Your task to perform on an android device: refresh tabs in the chrome app Image 0: 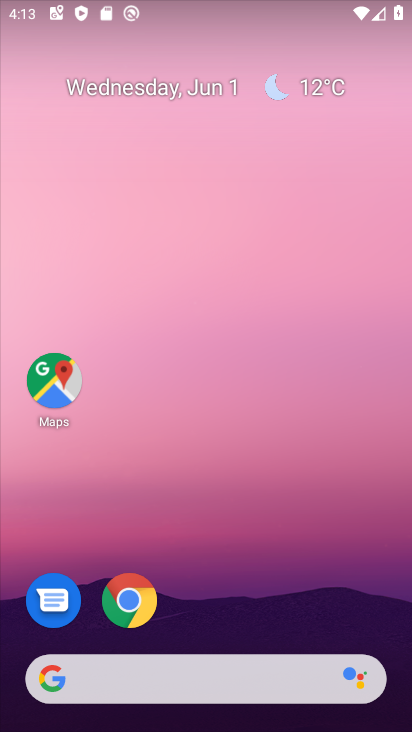
Step 0: click (131, 598)
Your task to perform on an android device: refresh tabs in the chrome app Image 1: 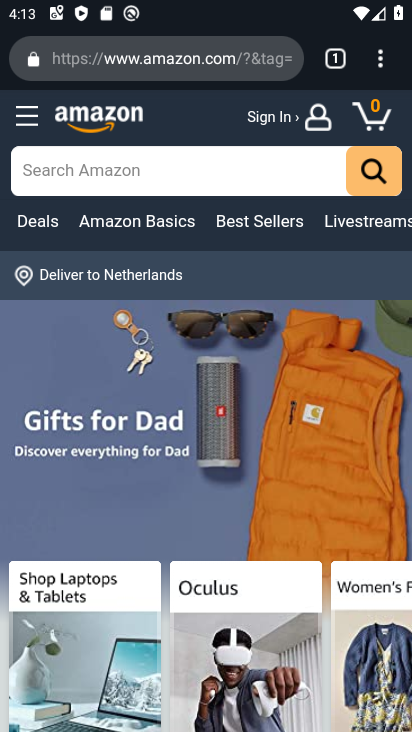
Step 1: click (382, 71)
Your task to perform on an android device: refresh tabs in the chrome app Image 2: 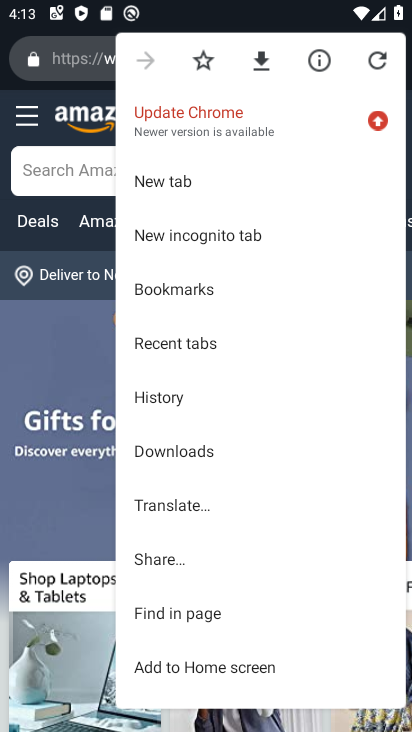
Step 2: click (378, 60)
Your task to perform on an android device: refresh tabs in the chrome app Image 3: 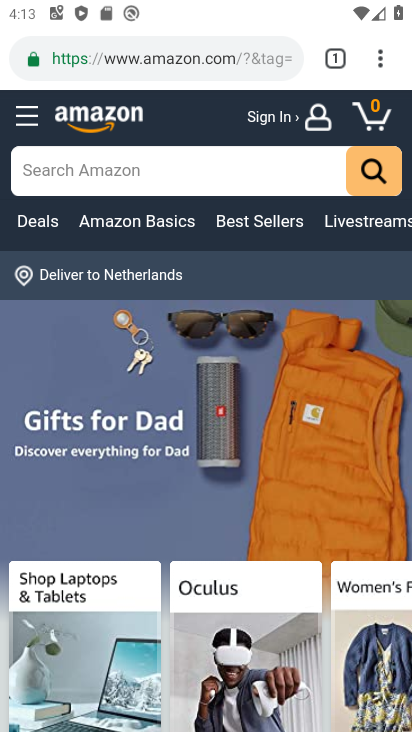
Step 3: task complete